Your task to perform on an android device: Go to wifi settings Image 0: 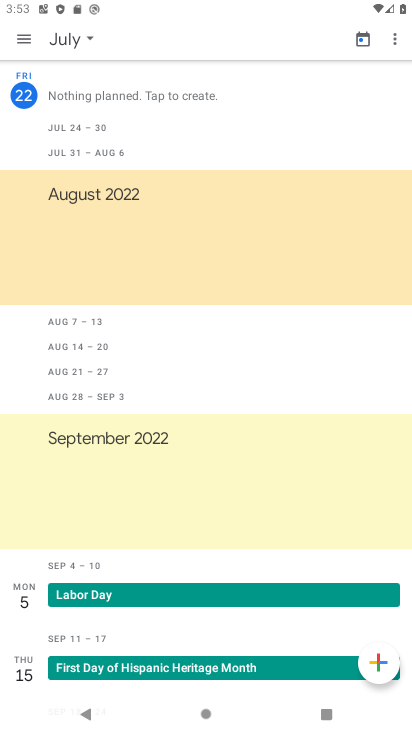
Step 0: press home button
Your task to perform on an android device: Go to wifi settings Image 1: 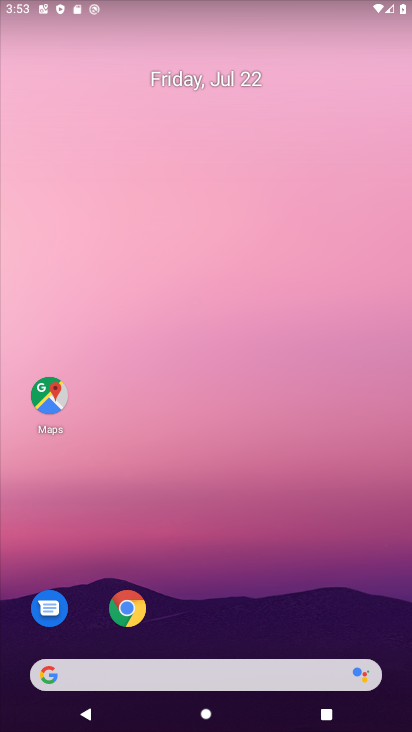
Step 1: drag from (230, 582) to (230, 191)
Your task to perform on an android device: Go to wifi settings Image 2: 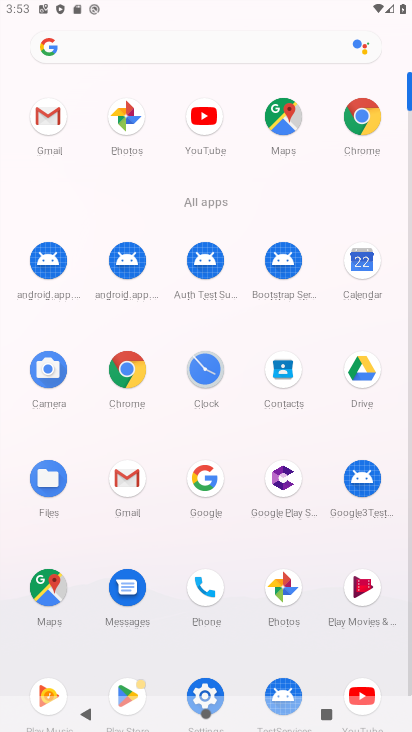
Step 2: click (210, 688)
Your task to perform on an android device: Go to wifi settings Image 3: 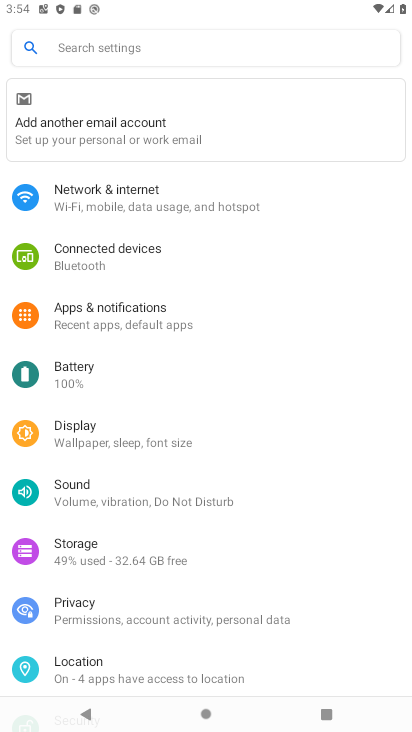
Step 3: click (113, 194)
Your task to perform on an android device: Go to wifi settings Image 4: 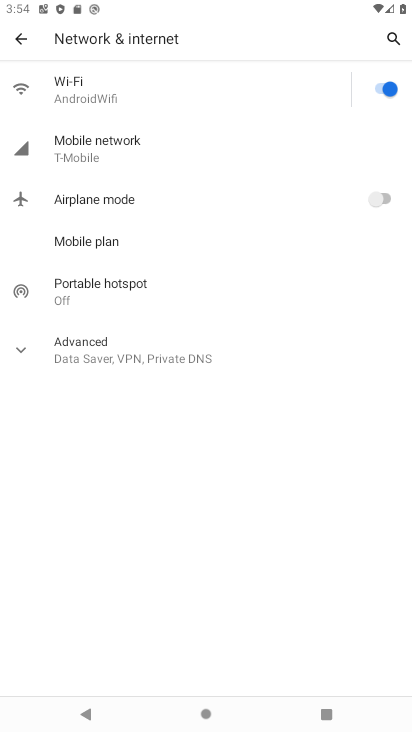
Step 4: click (72, 84)
Your task to perform on an android device: Go to wifi settings Image 5: 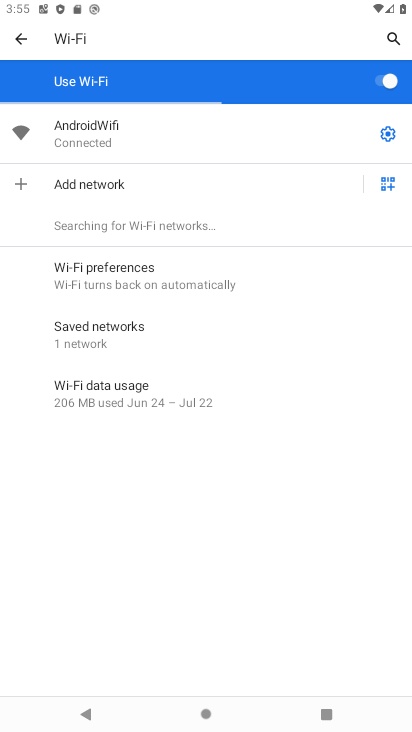
Step 5: task complete